Your task to perform on an android device: open app "Adobe Acrobat Reader: Edit PDF" (install if not already installed) and enter user name: "arthritis@inbox.com" and password: "scythes" Image 0: 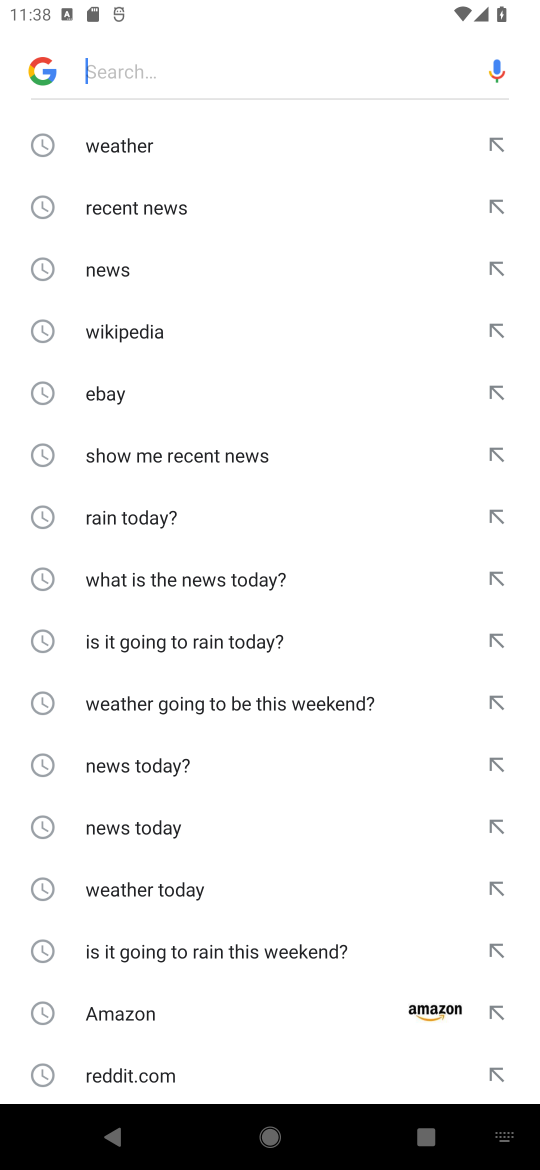
Step 0: press home button
Your task to perform on an android device: open app "Adobe Acrobat Reader: Edit PDF" (install if not already installed) and enter user name: "arthritis@inbox.com" and password: "scythes" Image 1: 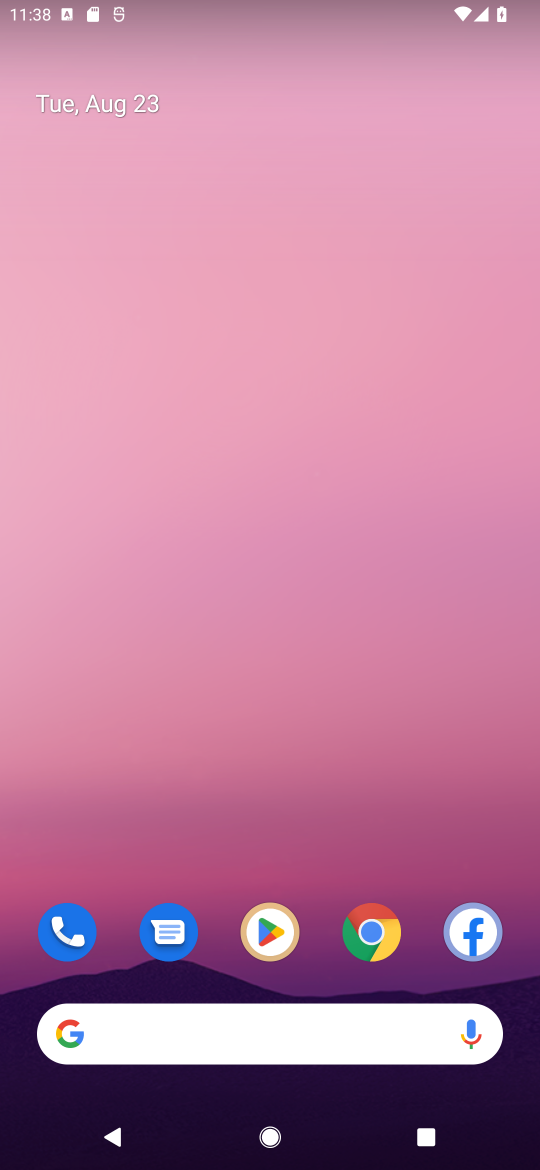
Step 1: click (271, 930)
Your task to perform on an android device: open app "Adobe Acrobat Reader: Edit PDF" (install if not already installed) and enter user name: "arthritis@inbox.com" and password: "scythes" Image 2: 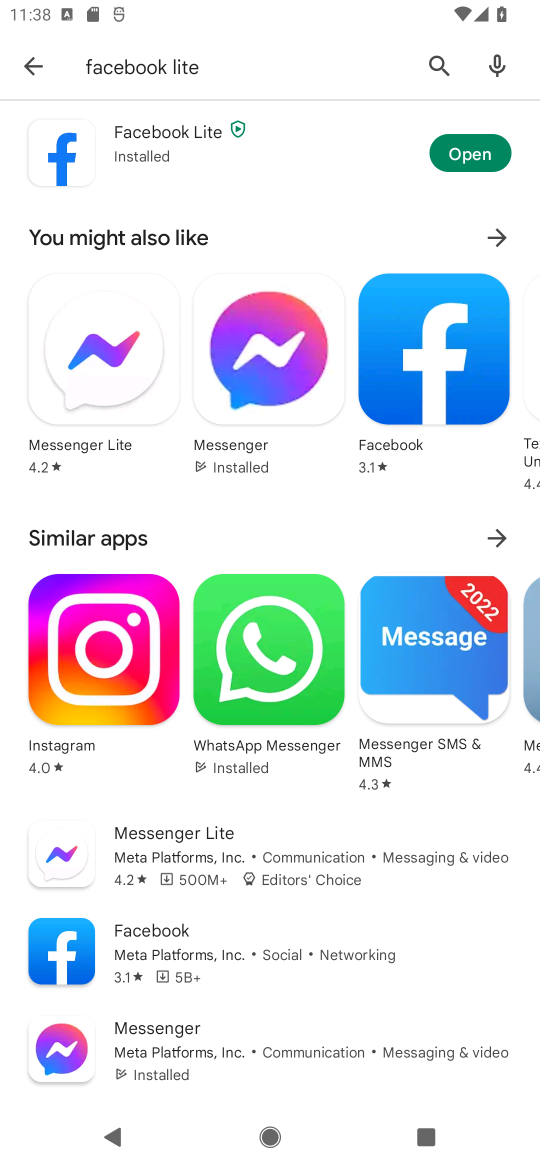
Step 2: click (445, 60)
Your task to perform on an android device: open app "Adobe Acrobat Reader: Edit PDF" (install if not already installed) and enter user name: "arthritis@inbox.com" and password: "scythes" Image 3: 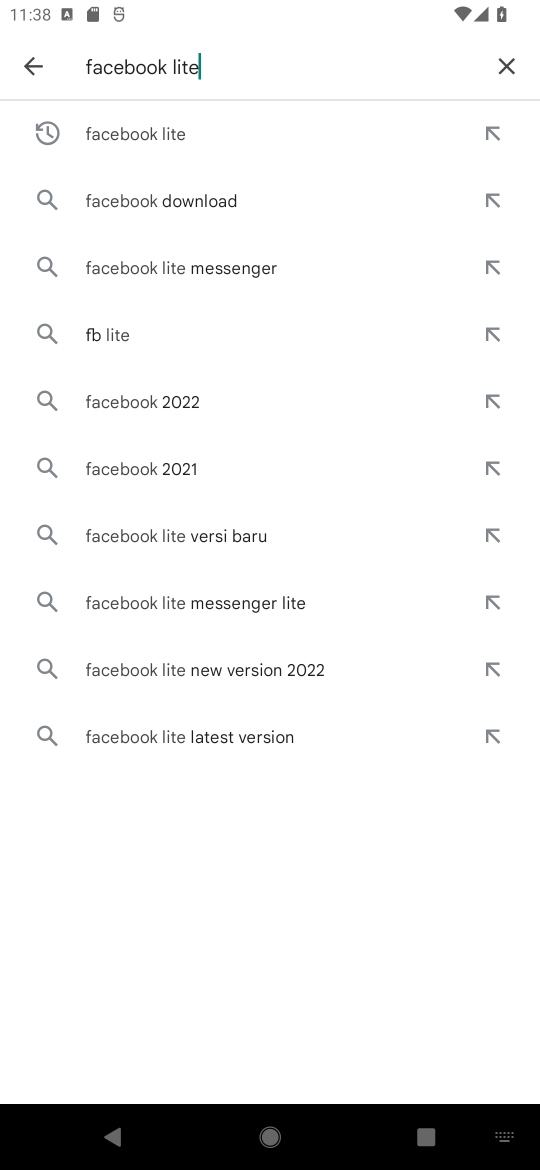
Step 3: click (515, 55)
Your task to perform on an android device: open app "Adobe Acrobat Reader: Edit PDF" (install if not already installed) and enter user name: "arthritis@inbox.com" and password: "scythes" Image 4: 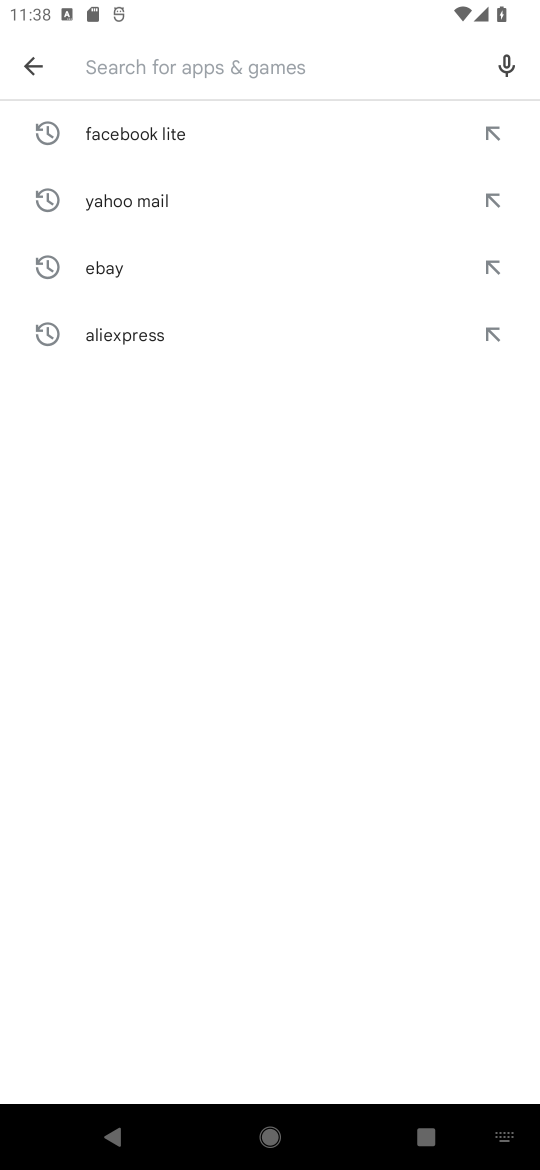
Step 4: click (147, 76)
Your task to perform on an android device: open app "Adobe Acrobat Reader: Edit PDF" (install if not already installed) and enter user name: "arthritis@inbox.com" and password: "scythes" Image 5: 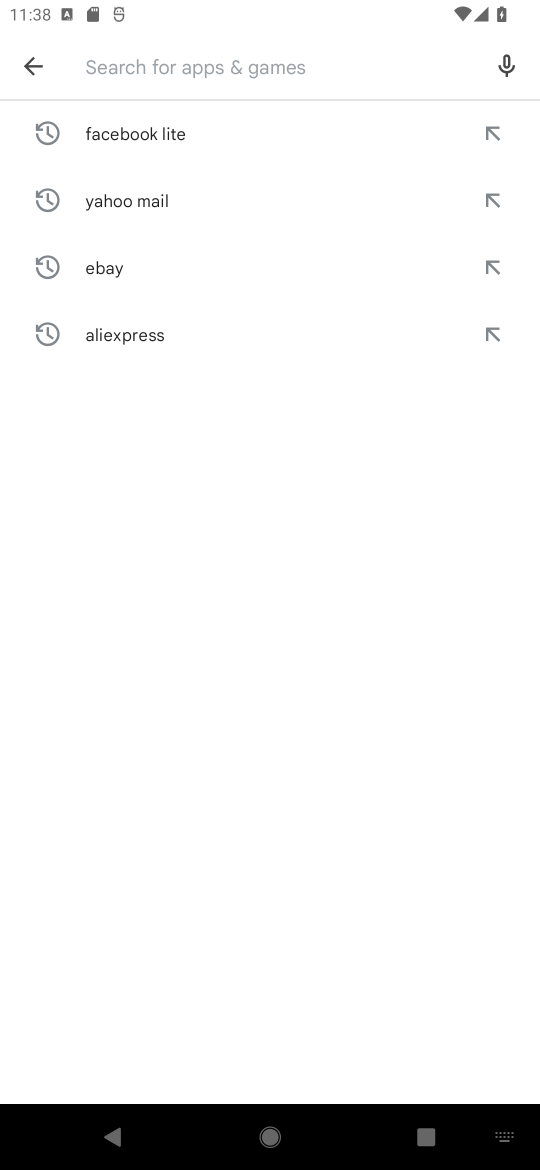
Step 5: type "Adobe Acrobat Reader"
Your task to perform on an android device: open app "Adobe Acrobat Reader: Edit PDF" (install if not already installed) and enter user name: "arthritis@inbox.com" and password: "scythes" Image 6: 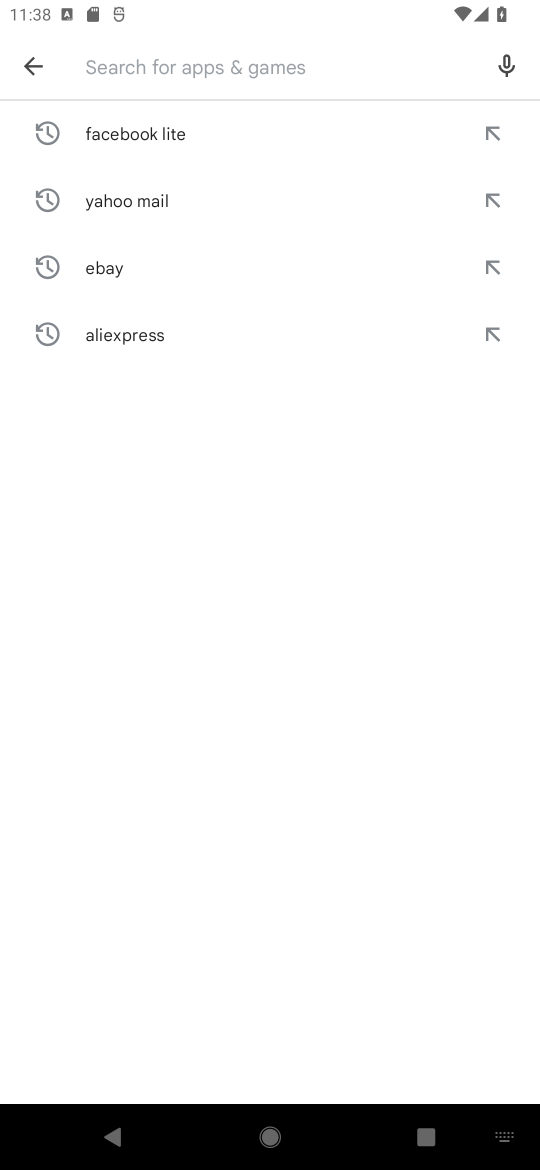
Step 6: click (399, 752)
Your task to perform on an android device: open app "Adobe Acrobat Reader: Edit PDF" (install if not already installed) and enter user name: "arthritis@inbox.com" and password: "scythes" Image 7: 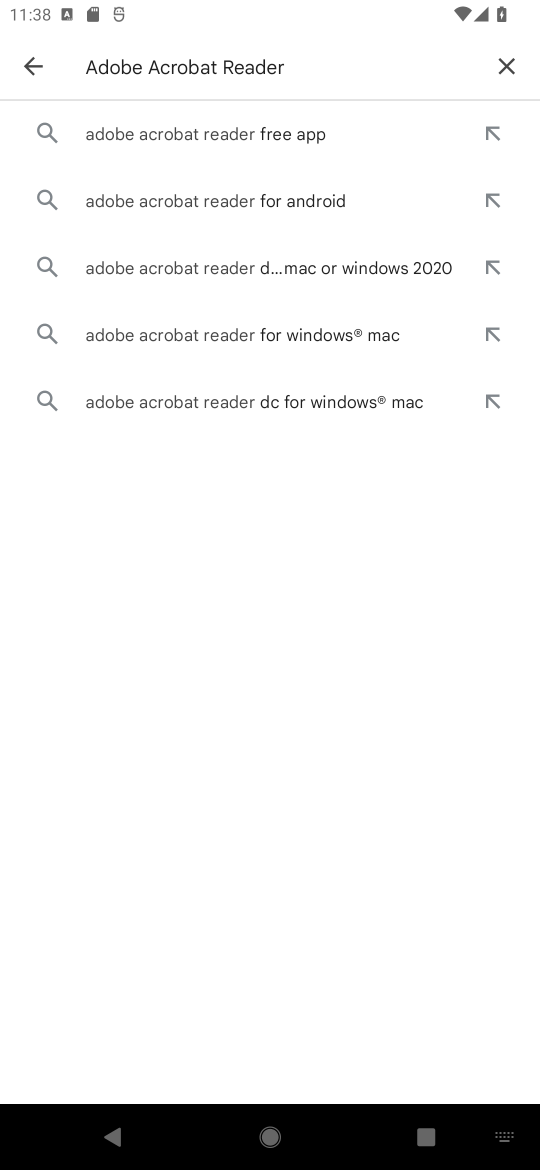
Step 7: click (250, 138)
Your task to perform on an android device: open app "Adobe Acrobat Reader: Edit PDF" (install if not already installed) and enter user name: "arthritis@inbox.com" and password: "scythes" Image 8: 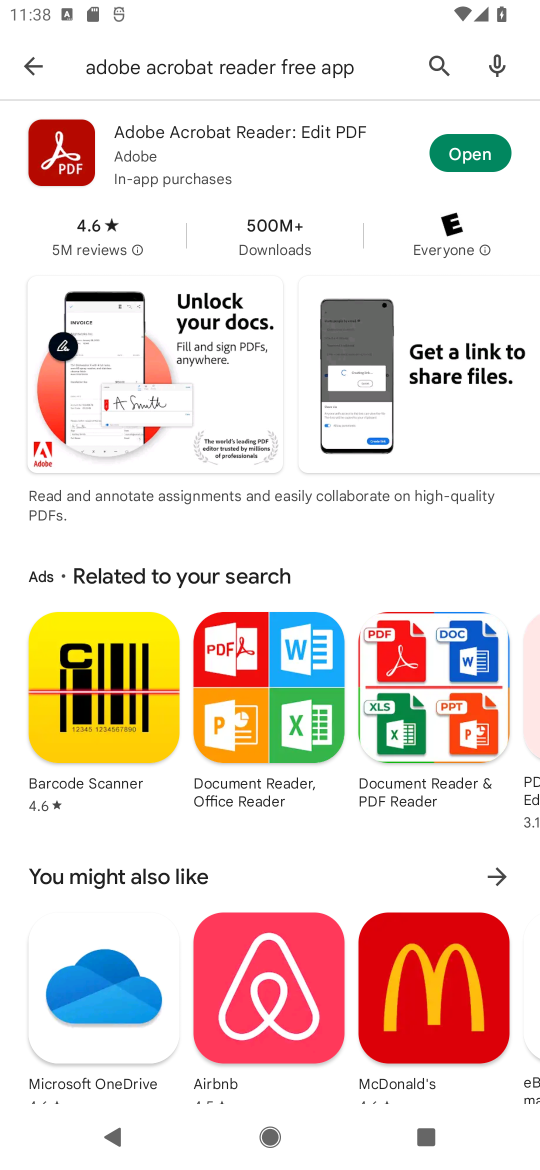
Step 8: click (456, 159)
Your task to perform on an android device: open app "Adobe Acrobat Reader: Edit PDF" (install if not already installed) and enter user name: "arthritis@inbox.com" and password: "scythes" Image 9: 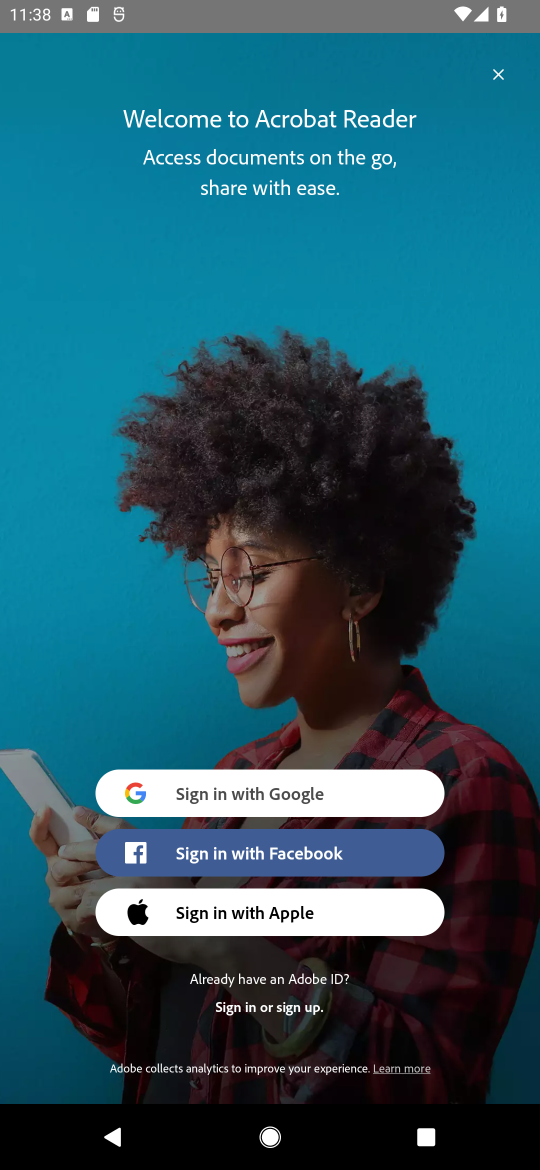
Step 9: click (240, 996)
Your task to perform on an android device: open app "Adobe Acrobat Reader: Edit PDF" (install if not already installed) and enter user name: "arthritis@inbox.com" and password: "scythes" Image 10: 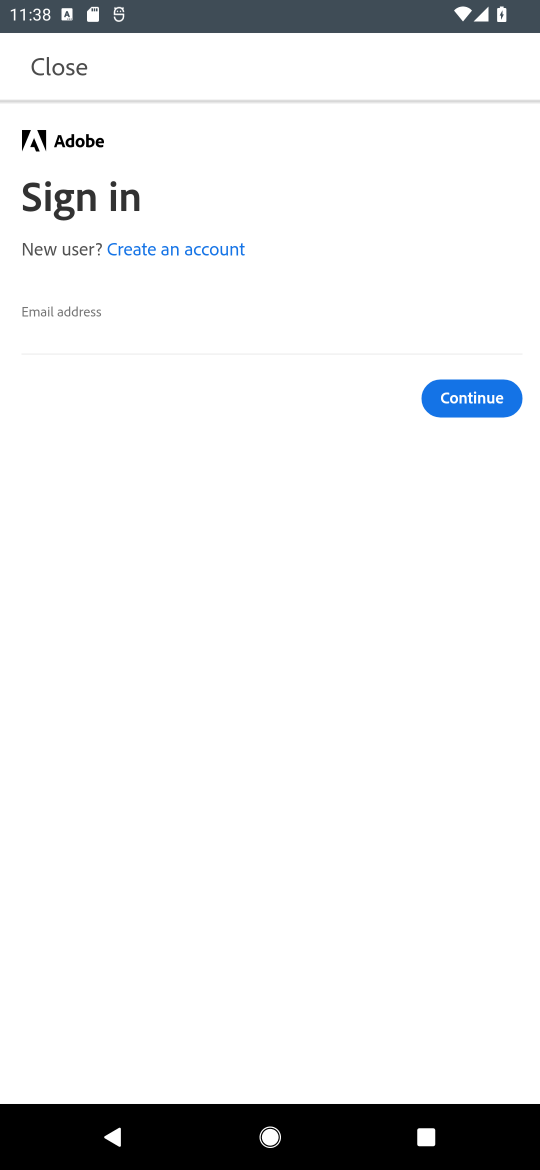
Step 10: click (113, 316)
Your task to perform on an android device: open app "Adobe Acrobat Reader: Edit PDF" (install if not already installed) and enter user name: "arthritis@inbox.com" and password: "scythes" Image 11: 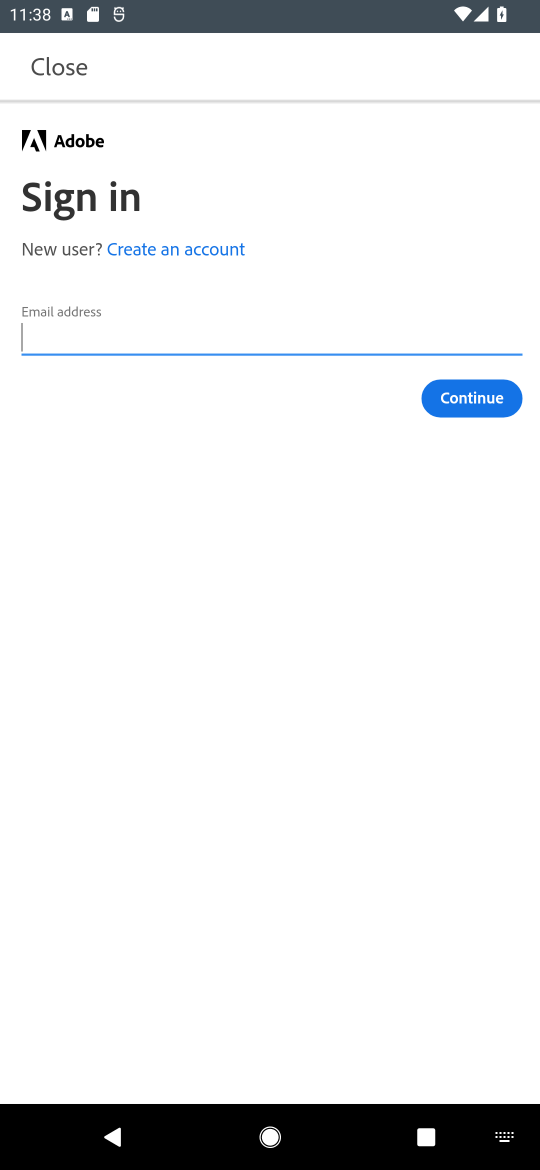
Step 11: click (137, 322)
Your task to perform on an android device: open app "Adobe Acrobat Reader: Edit PDF" (install if not already installed) and enter user name: "arthritis@inbox.com" and password: "scythes" Image 12: 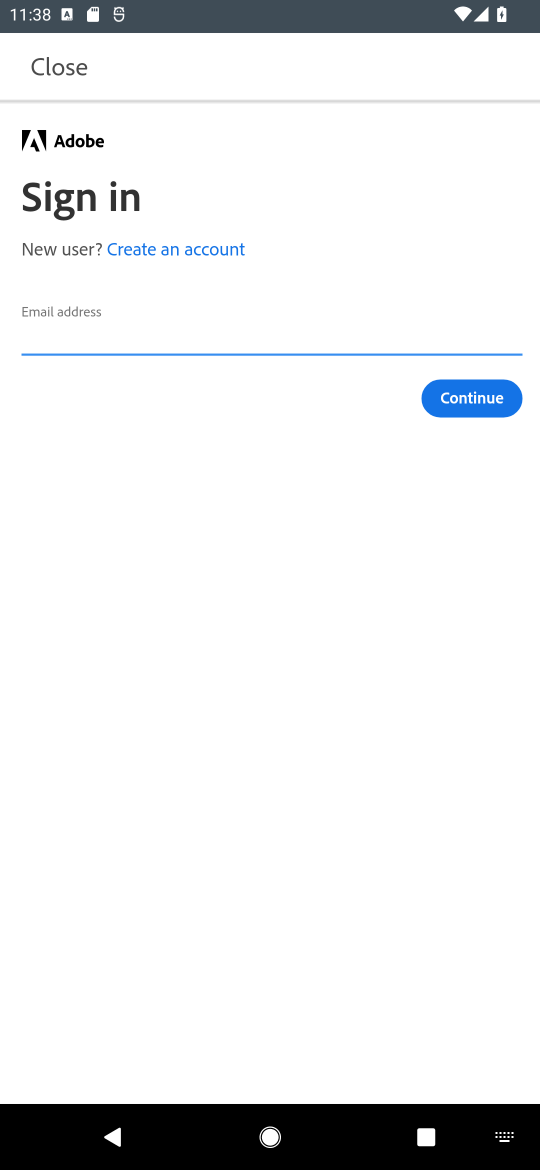
Step 12: type "arthritis@inbox.com"
Your task to perform on an android device: open app "Adobe Acrobat Reader: Edit PDF" (install if not already installed) and enter user name: "arthritis@inbox.com" and password: "scythes" Image 13: 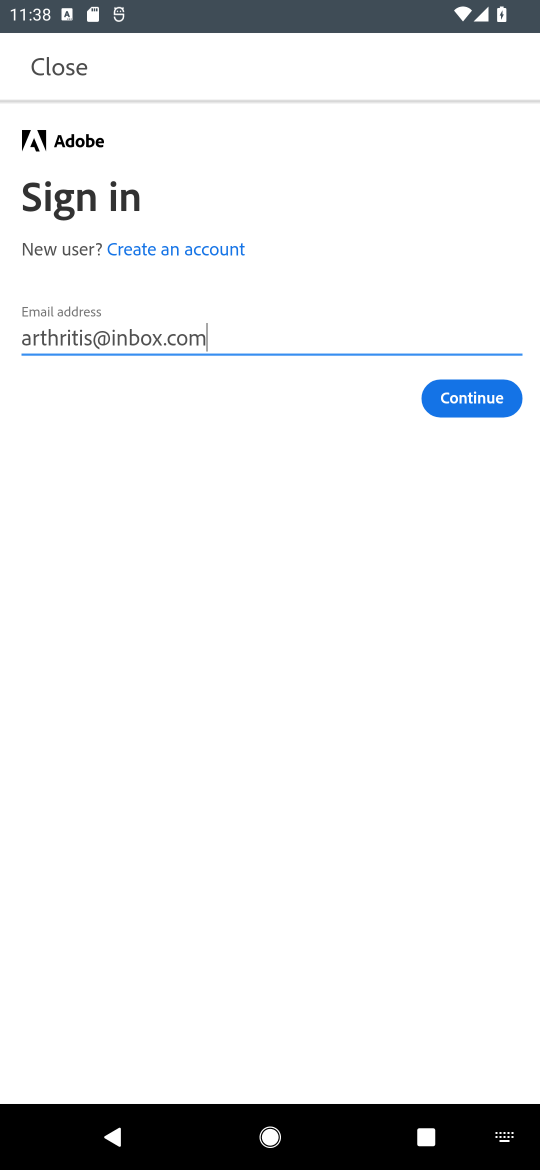
Step 13: click (472, 405)
Your task to perform on an android device: open app "Adobe Acrobat Reader: Edit PDF" (install if not already installed) and enter user name: "arthritis@inbox.com" and password: "scythes" Image 14: 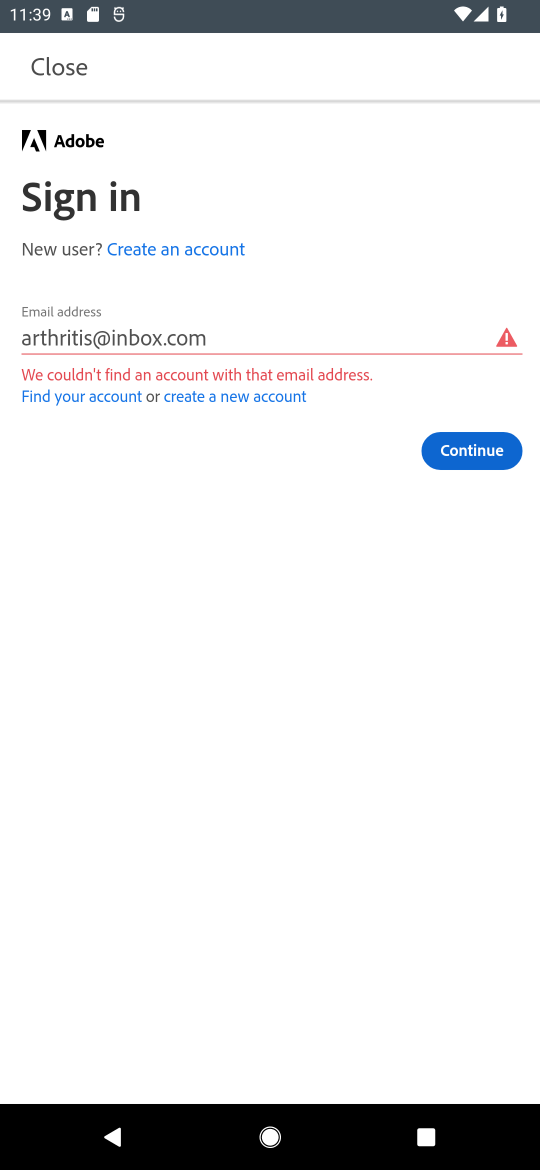
Step 14: task complete